Your task to perform on an android device: install app "Speedtest by Ookla" Image 0: 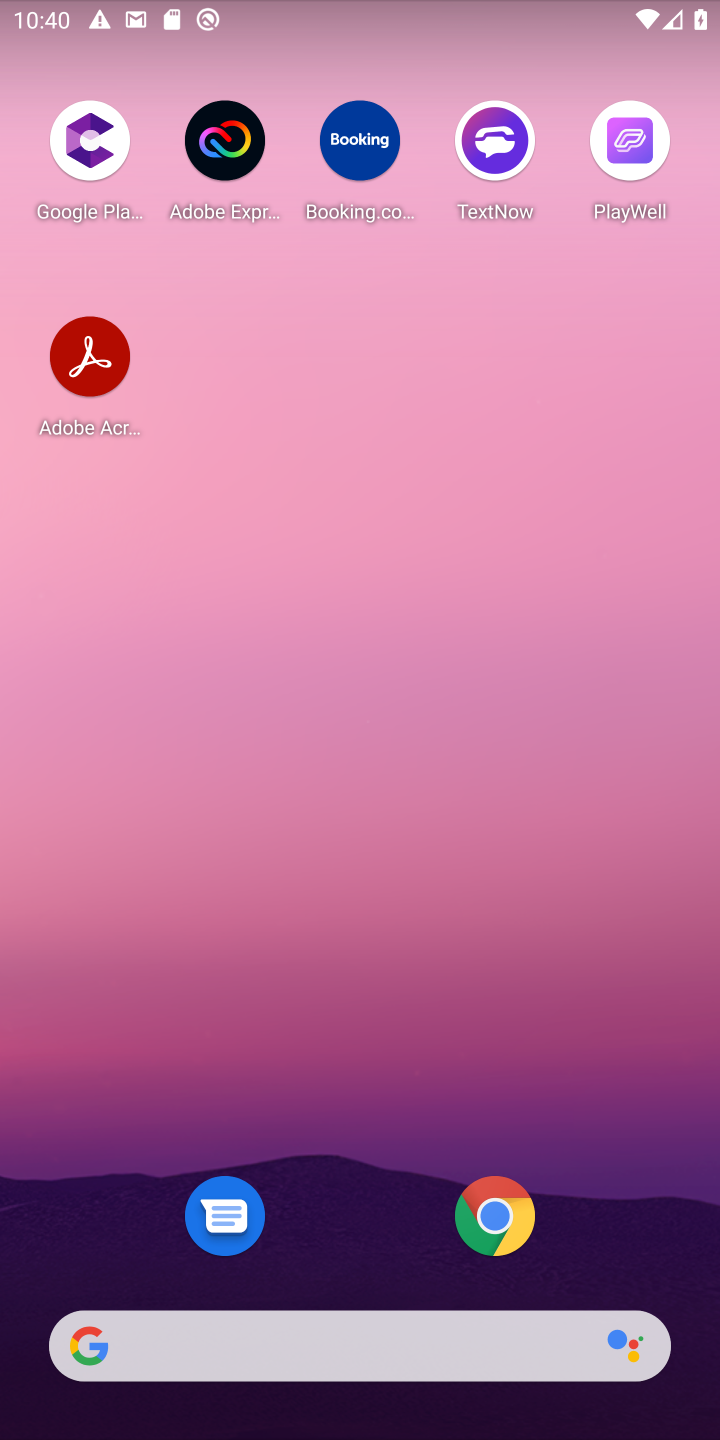
Step 0: drag from (328, 1236) to (431, 0)
Your task to perform on an android device: install app "Speedtest by Ookla" Image 1: 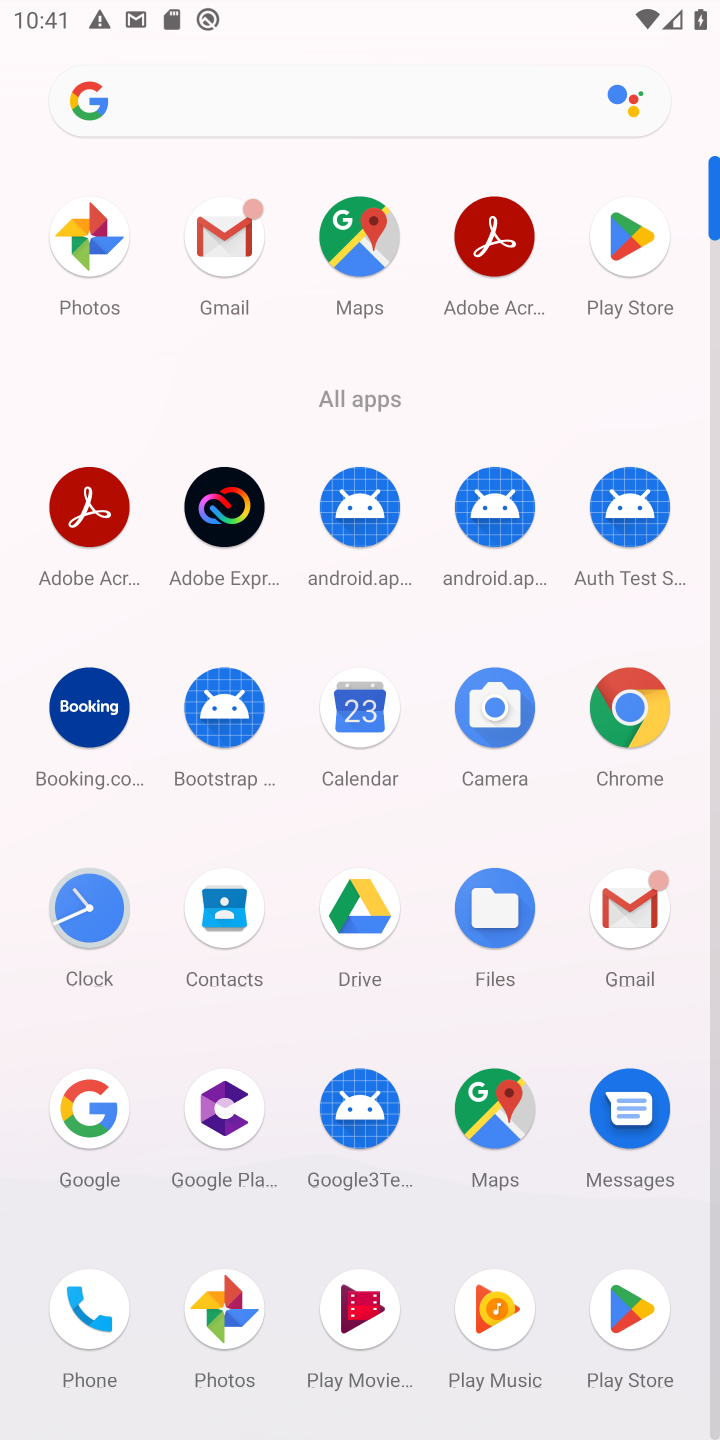
Step 1: click (644, 267)
Your task to perform on an android device: install app "Speedtest by Ookla" Image 2: 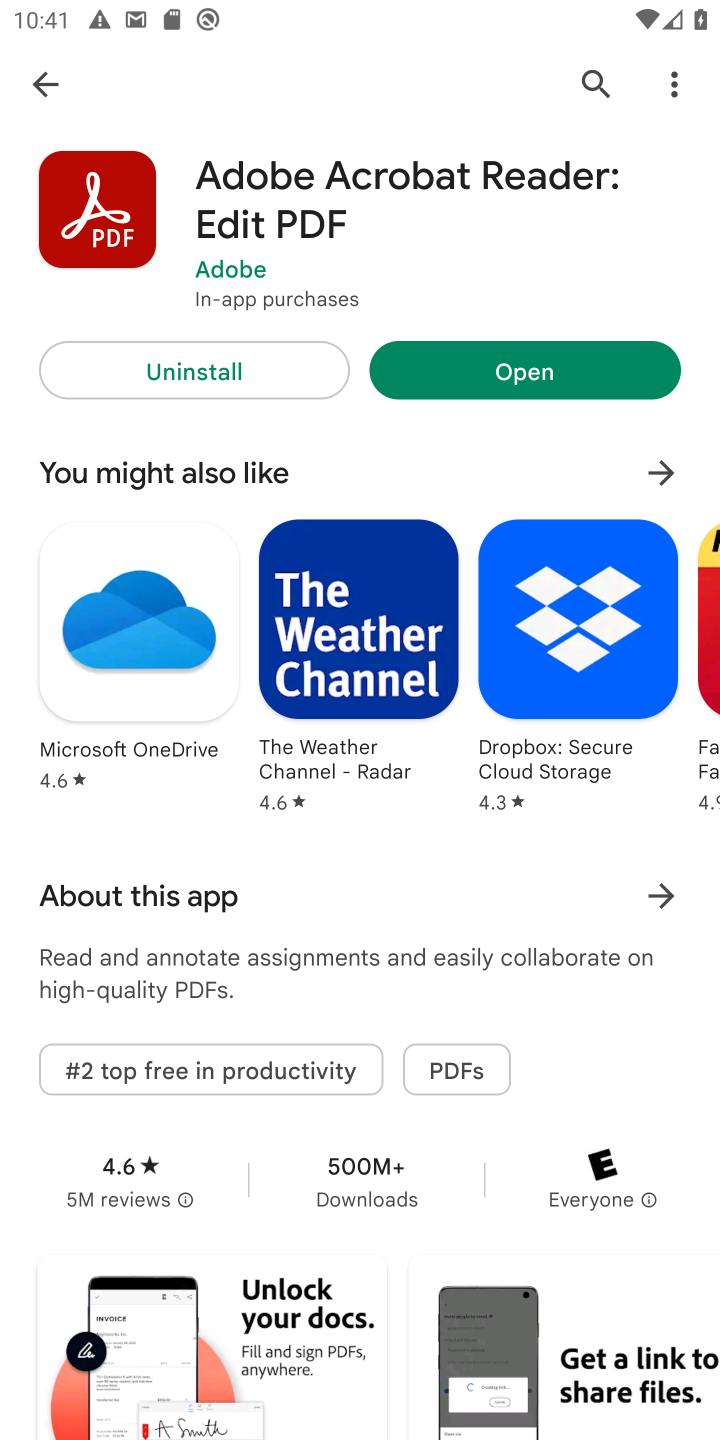
Step 2: press back button
Your task to perform on an android device: install app "Speedtest by Ookla" Image 3: 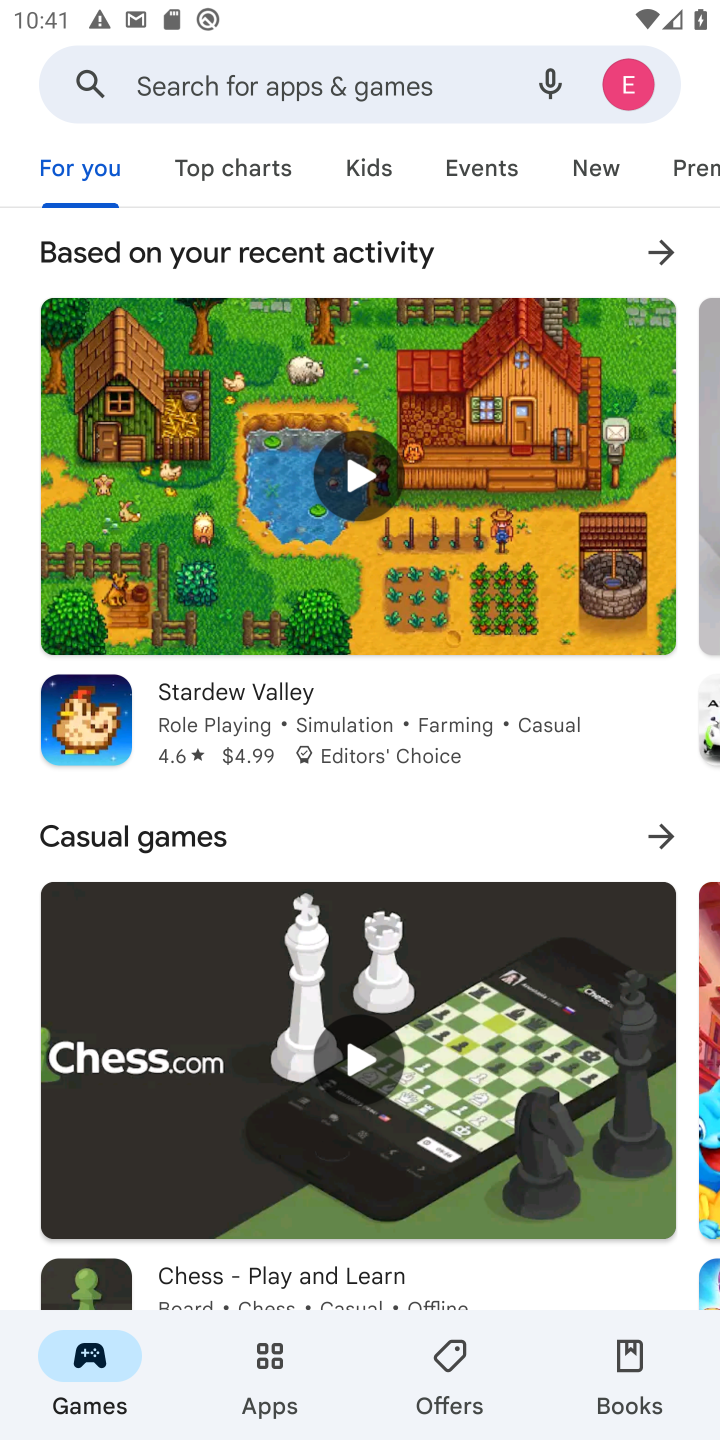
Step 3: click (375, 91)
Your task to perform on an android device: install app "Speedtest by Ookla" Image 4: 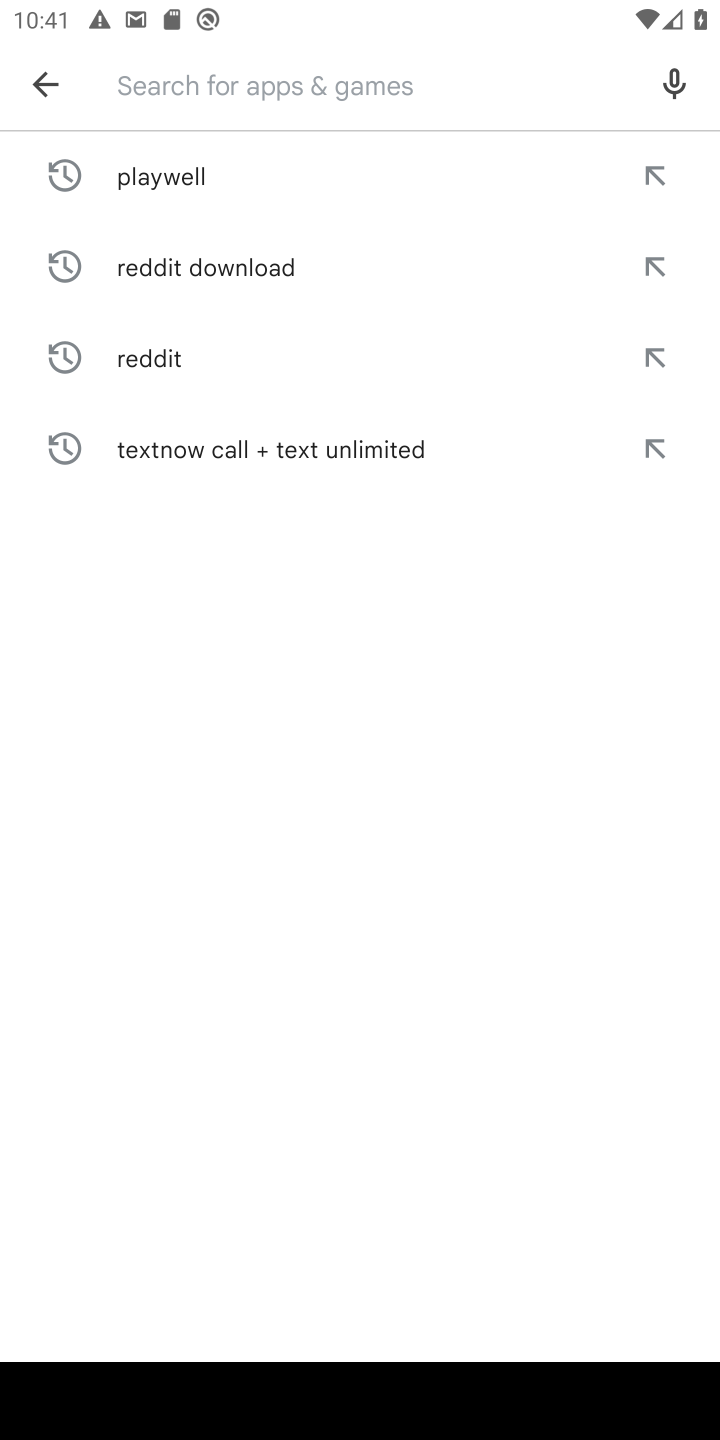
Step 4: type "Speedtest by Ookla"
Your task to perform on an android device: install app "Speedtest by Ookla" Image 5: 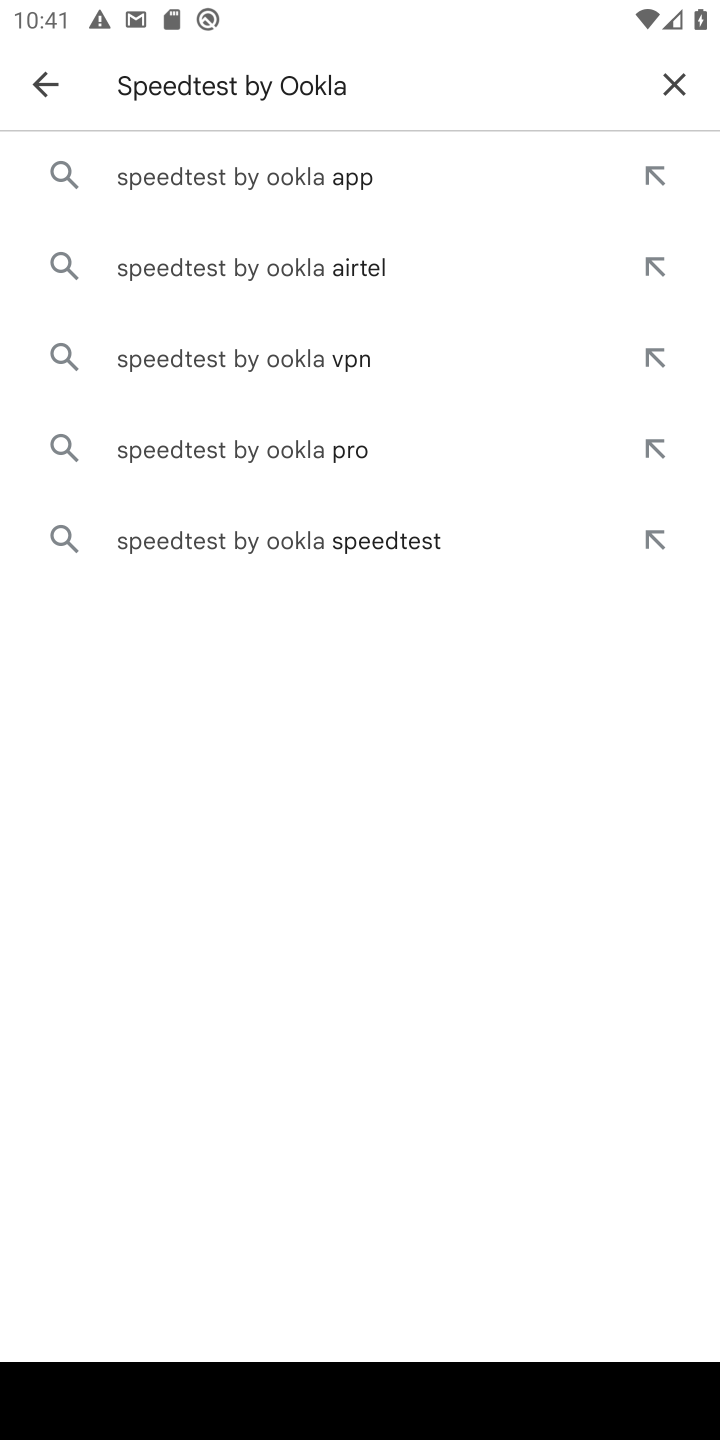
Step 5: click (321, 186)
Your task to perform on an android device: install app "Speedtest by Ookla" Image 6: 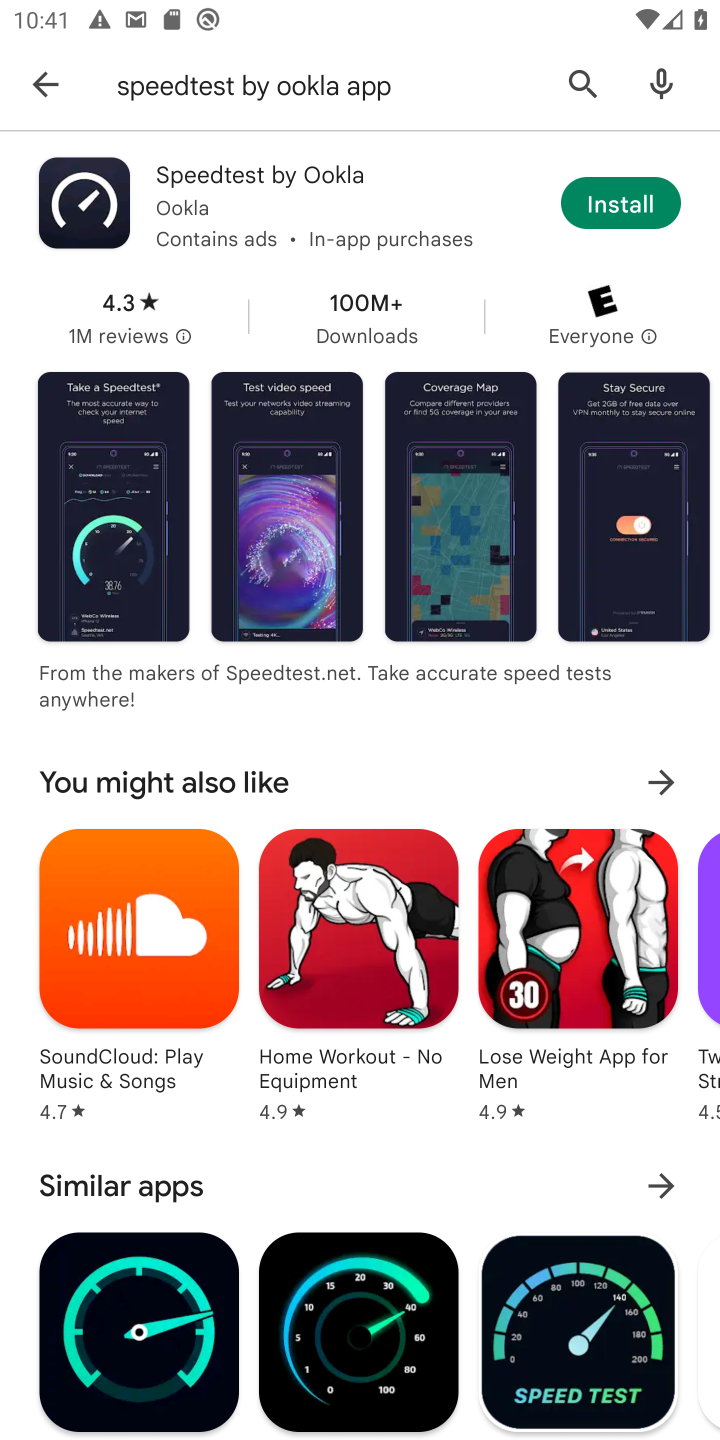
Step 6: click (619, 196)
Your task to perform on an android device: install app "Speedtest by Ookla" Image 7: 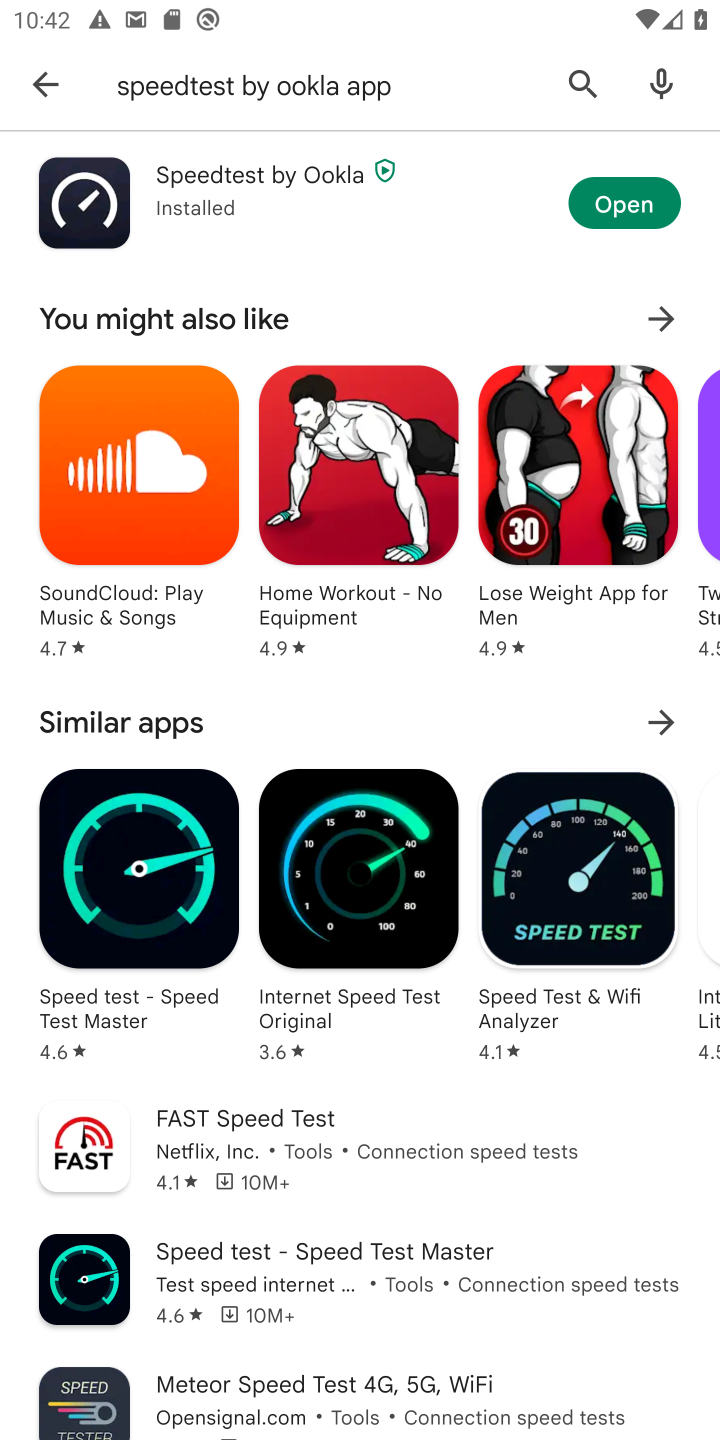
Step 7: task complete